Your task to perform on an android device: Open notification settings Image 0: 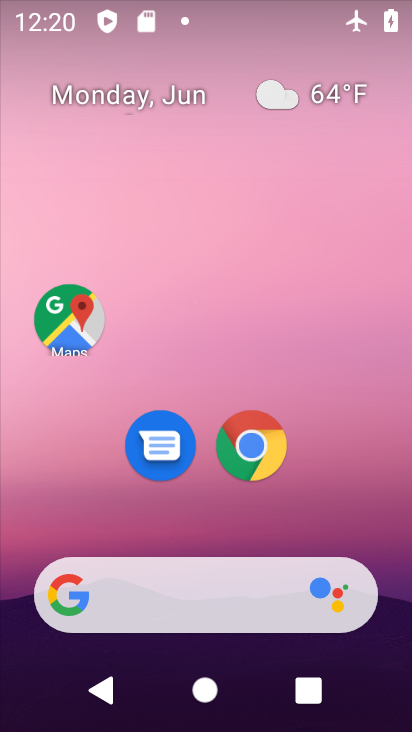
Step 0: drag from (271, 566) to (355, 13)
Your task to perform on an android device: Open notification settings Image 1: 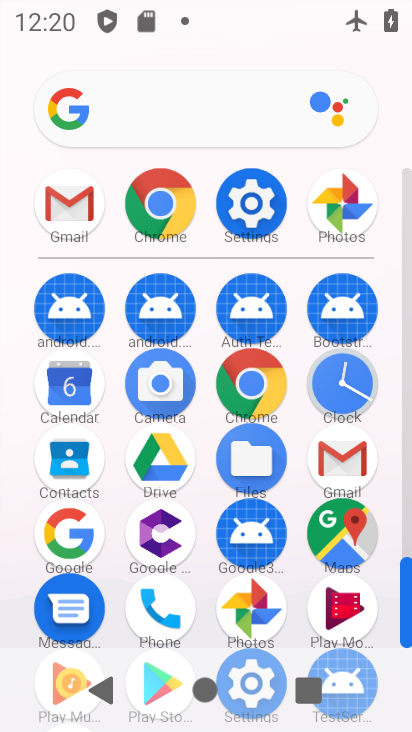
Step 1: click (253, 198)
Your task to perform on an android device: Open notification settings Image 2: 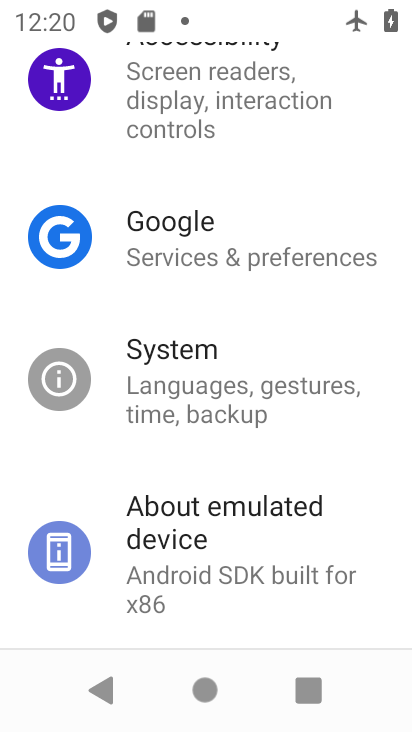
Step 2: drag from (314, 246) to (371, 575)
Your task to perform on an android device: Open notification settings Image 3: 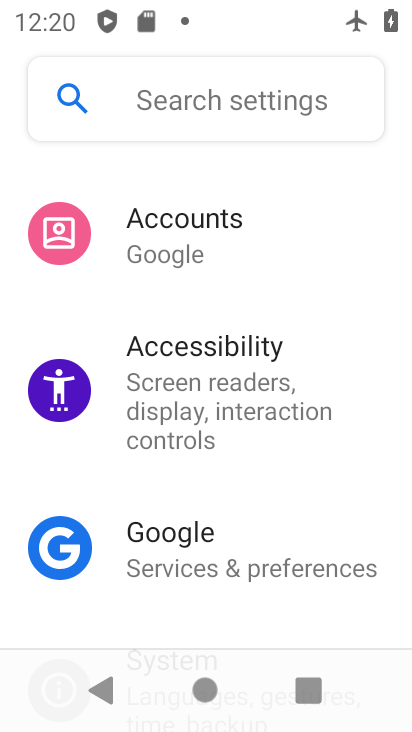
Step 3: drag from (197, 149) to (334, 566)
Your task to perform on an android device: Open notification settings Image 4: 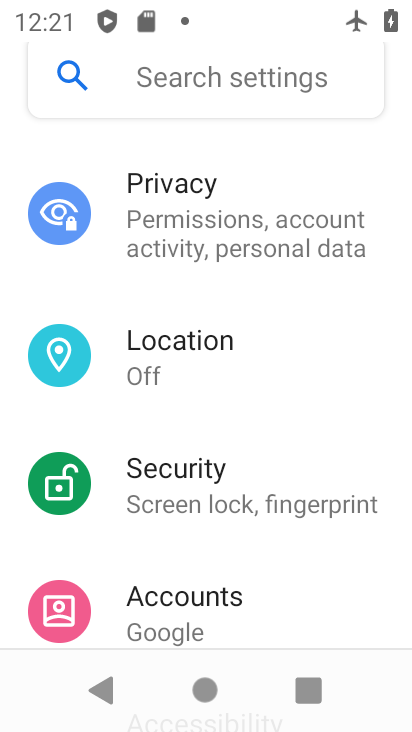
Step 4: drag from (283, 329) to (410, 489)
Your task to perform on an android device: Open notification settings Image 5: 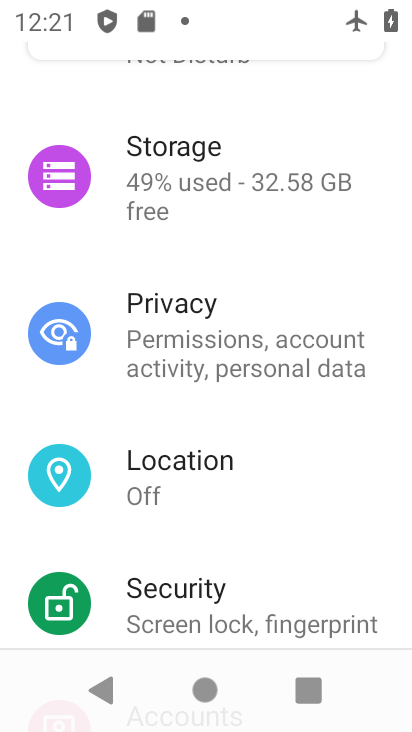
Step 5: drag from (322, 296) to (376, 550)
Your task to perform on an android device: Open notification settings Image 6: 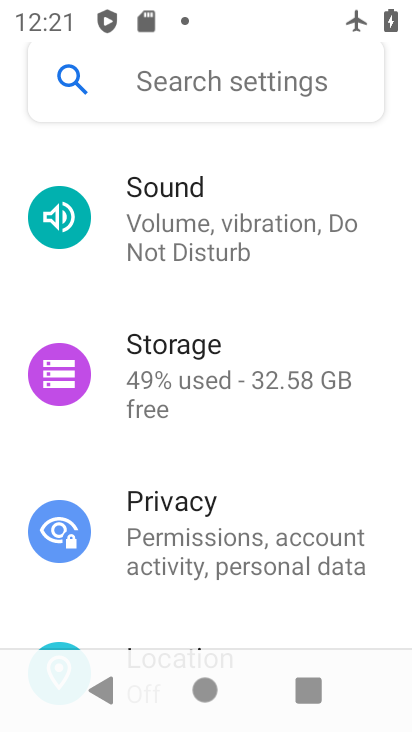
Step 6: drag from (299, 306) to (346, 630)
Your task to perform on an android device: Open notification settings Image 7: 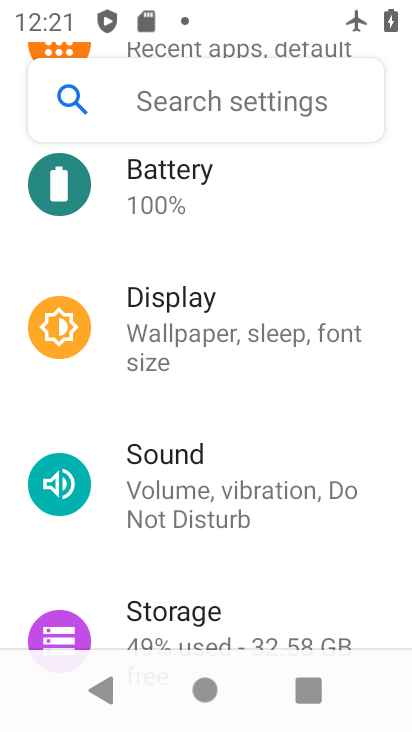
Step 7: drag from (248, 298) to (304, 636)
Your task to perform on an android device: Open notification settings Image 8: 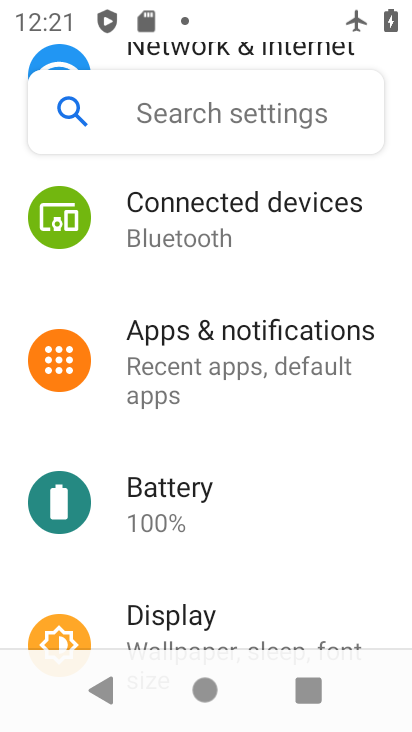
Step 8: click (261, 348)
Your task to perform on an android device: Open notification settings Image 9: 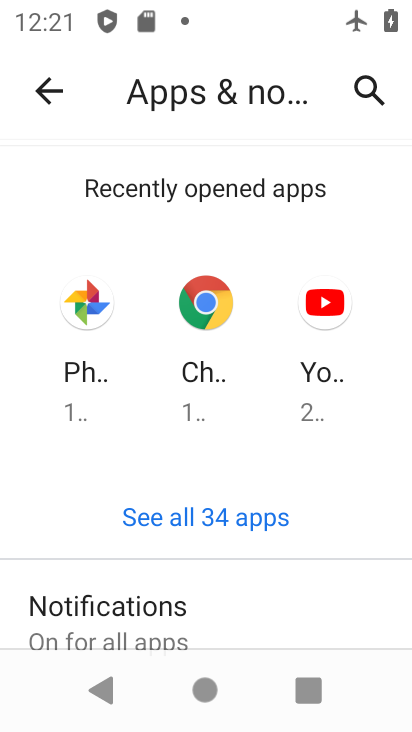
Step 9: task complete